Your task to perform on an android device: Check the weather Image 0: 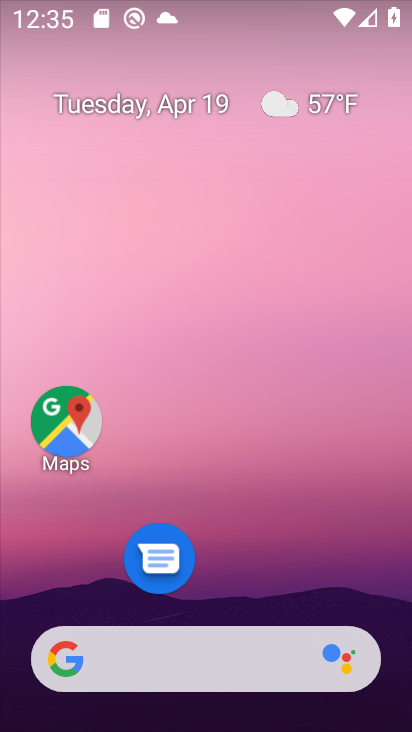
Step 0: drag from (232, 606) to (215, 68)
Your task to perform on an android device: Check the weather Image 1: 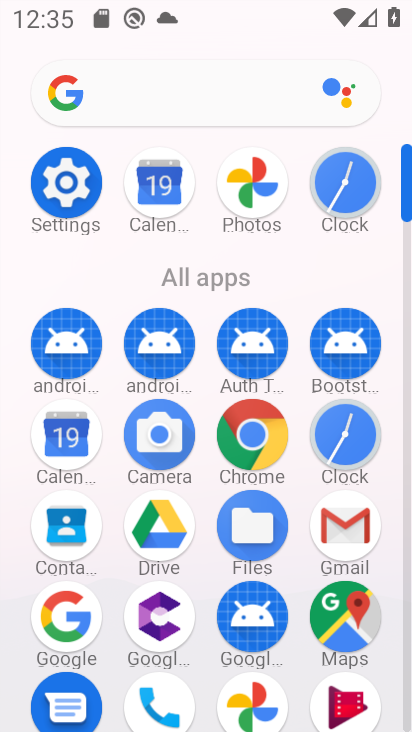
Step 1: click (267, 451)
Your task to perform on an android device: Check the weather Image 2: 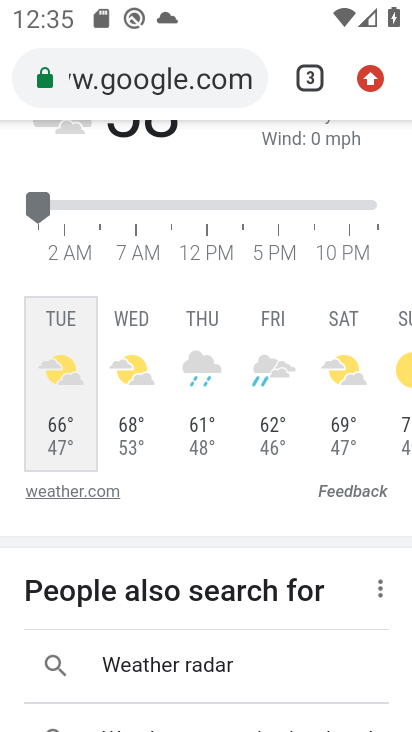
Step 2: click (300, 79)
Your task to perform on an android device: Check the weather Image 3: 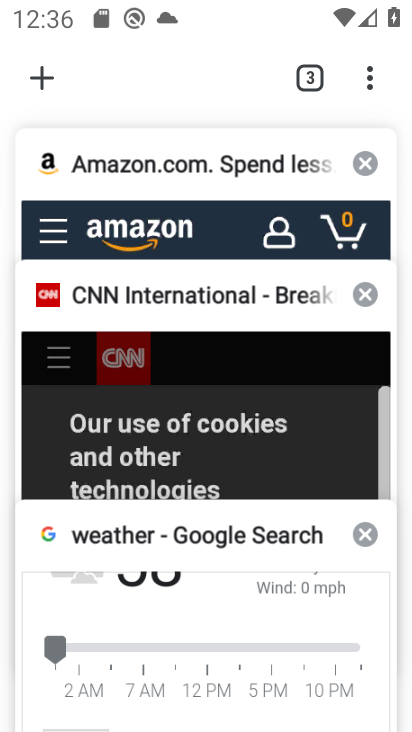
Step 3: click (147, 605)
Your task to perform on an android device: Check the weather Image 4: 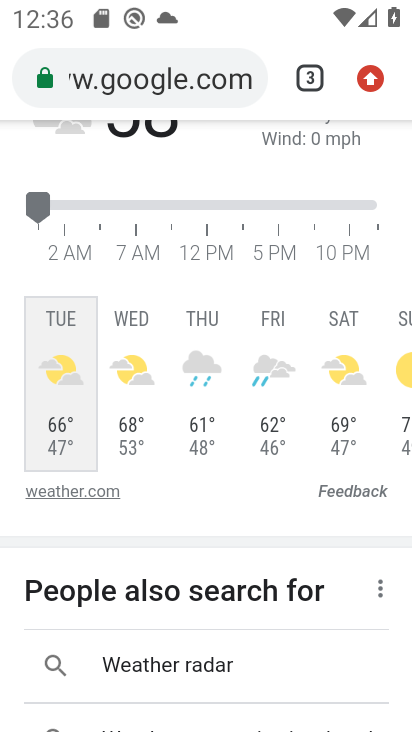
Step 4: task complete